Your task to perform on an android device: Open Google Maps Image 0: 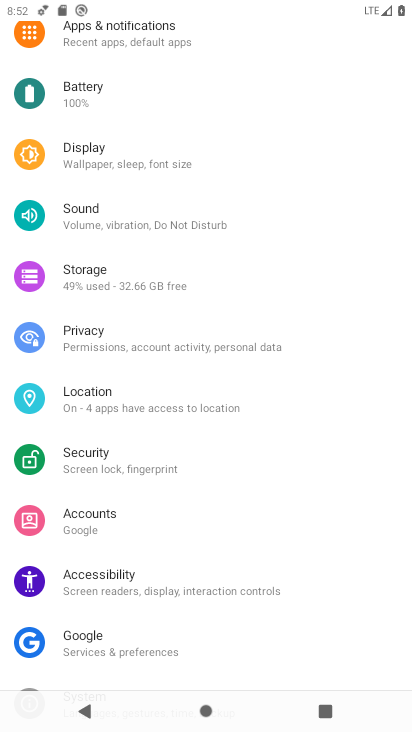
Step 0: press home button
Your task to perform on an android device: Open Google Maps Image 1: 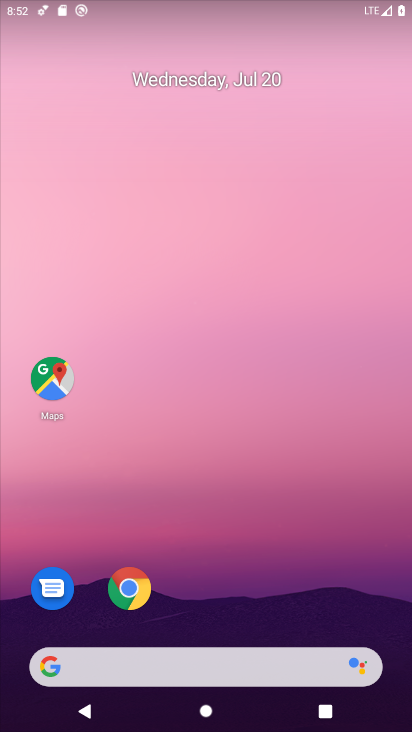
Step 1: click (44, 375)
Your task to perform on an android device: Open Google Maps Image 2: 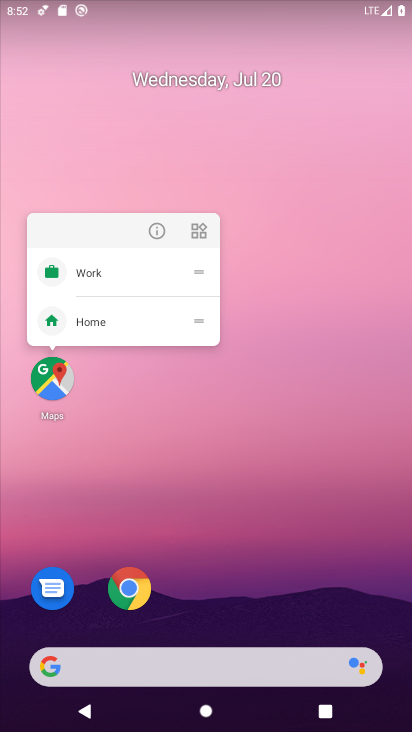
Step 2: click (41, 376)
Your task to perform on an android device: Open Google Maps Image 3: 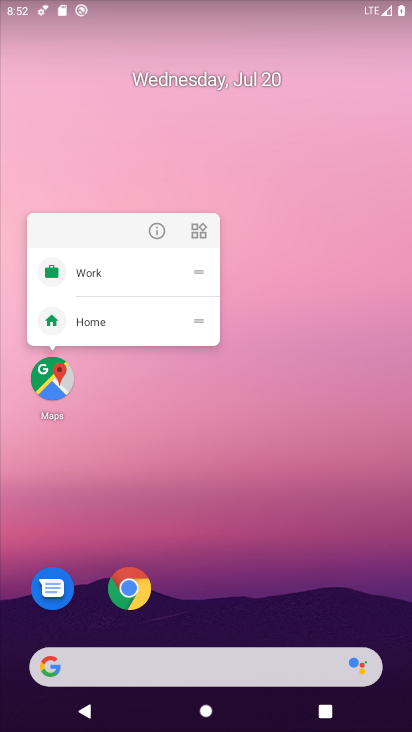
Step 3: click (52, 371)
Your task to perform on an android device: Open Google Maps Image 4: 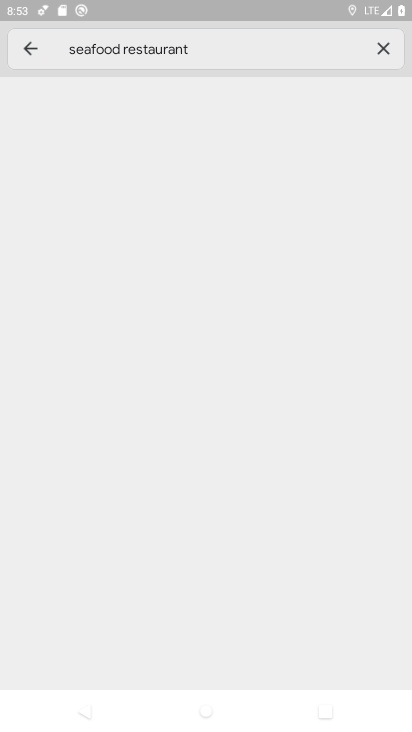
Step 4: click (386, 47)
Your task to perform on an android device: Open Google Maps Image 5: 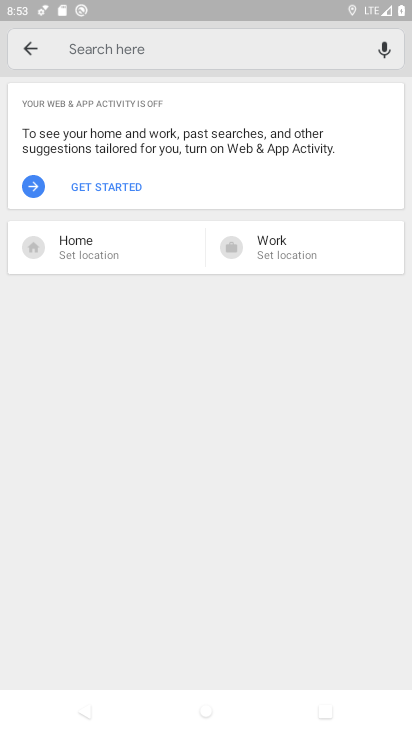
Step 5: click (27, 52)
Your task to perform on an android device: Open Google Maps Image 6: 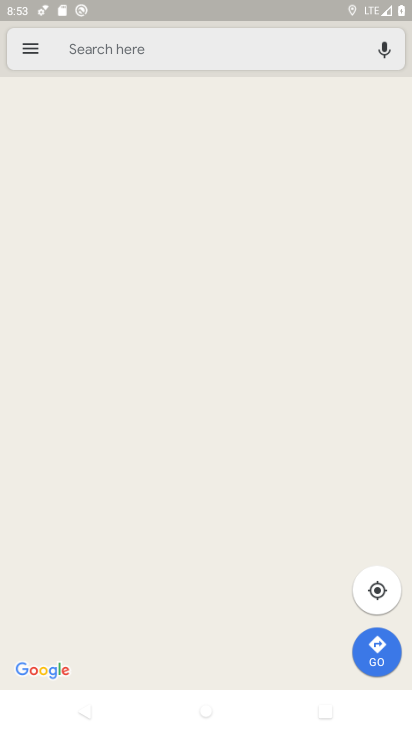
Step 6: click (369, 583)
Your task to perform on an android device: Open Google Maps Image 7: 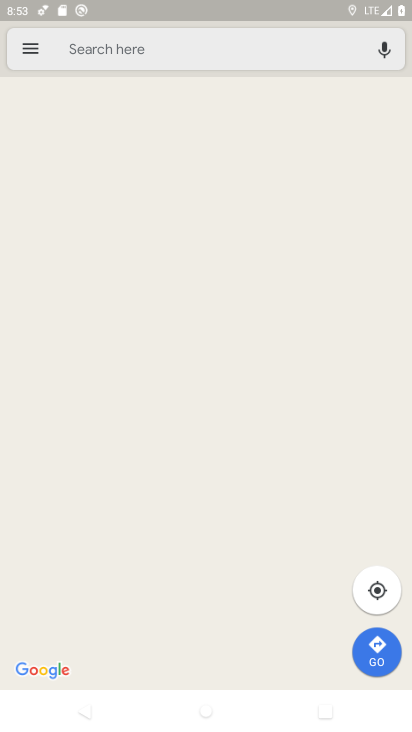
Step 7: click (381, 591)
Your task to perform on an android device: Open Google Maps Image 8: 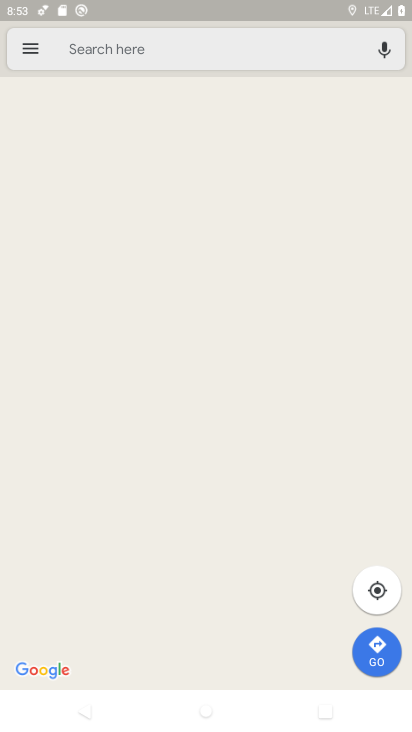
Step 8: click (372, 590)
Your task to perform on an android device: Open Google Maps Image 9: 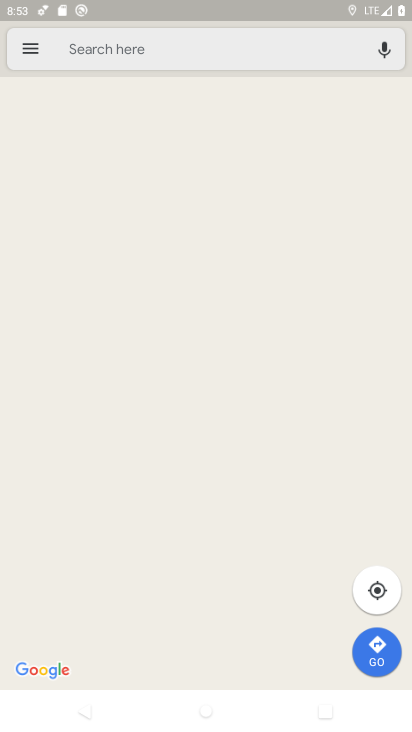
Step 9: task complete